Your task to perform on an android device: Open the stopwatch Image 0: 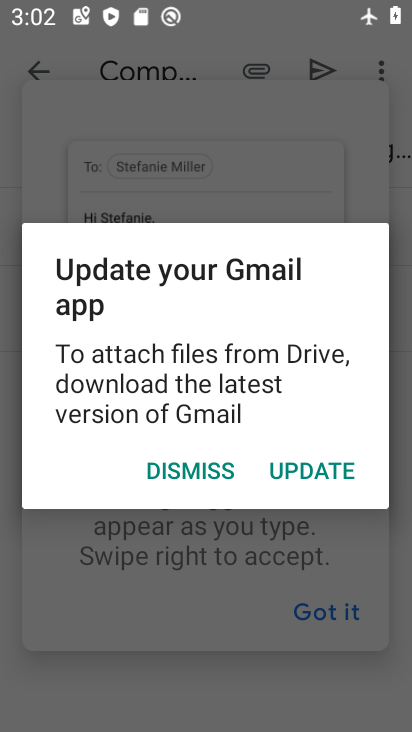
Step 0: press home button
Your task to perform on an android device: Open the stopwatch Image 1: 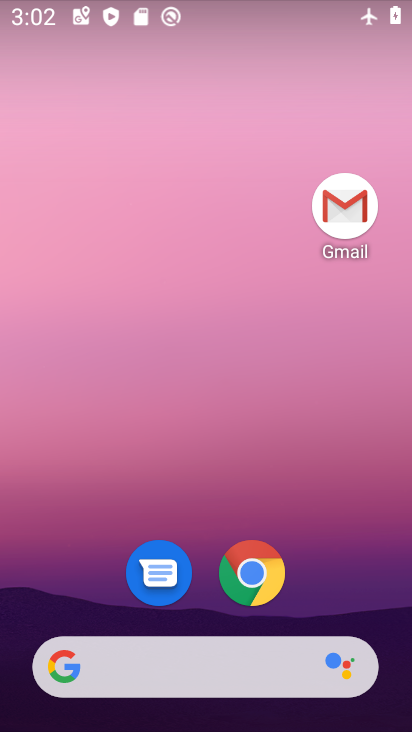
Step 1: drag from (321, 590) to (318, 62)
Your task to perform on an android device: Open the stopwatch Image 2: 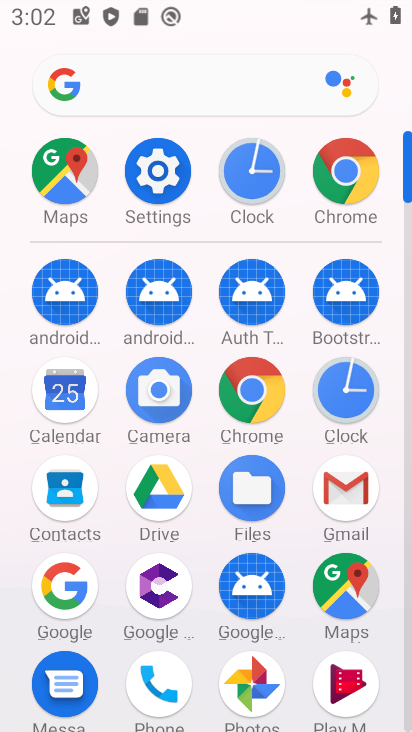
Step 2: drag from (194, 542) to (203, 279)
Your task to perform on an android device: Open the stopwatch Image 3: 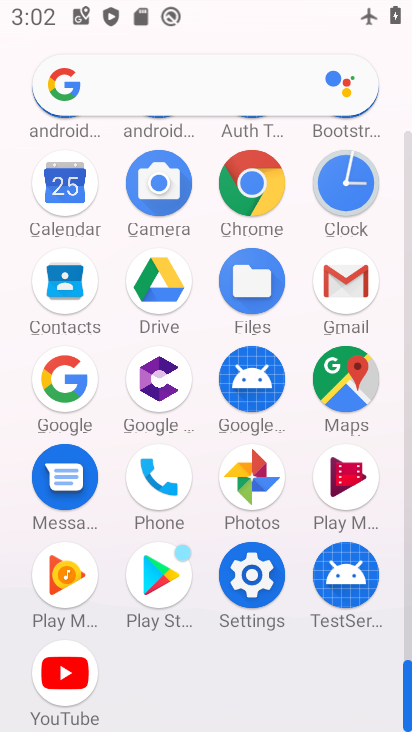
Step 3: click (339, 192)
Your task to perform on an android device: Open the stopwatch Image 4: 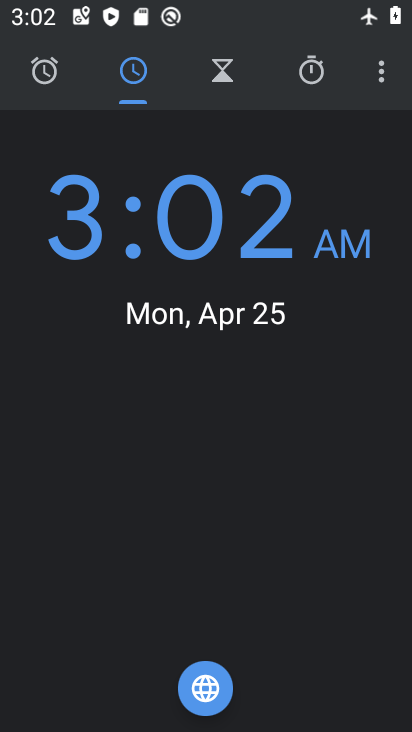
Step 4: click (308, 71)
Your task to perform on an android device: Open the stopwatch Image 5: 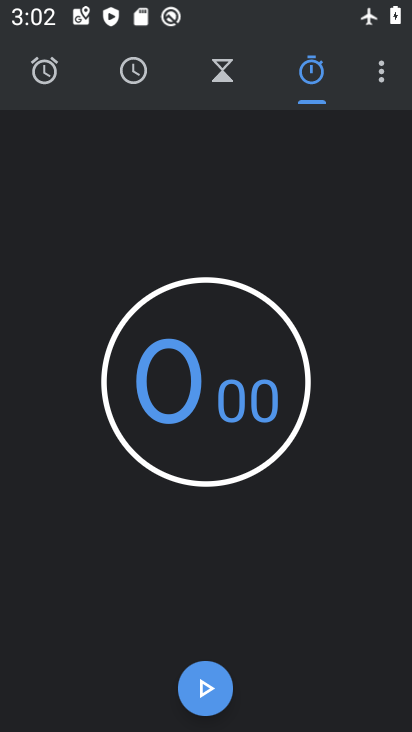
Step 5: task complete